Your task to perform on an android device: snooze an email in the gmail app Image 0: 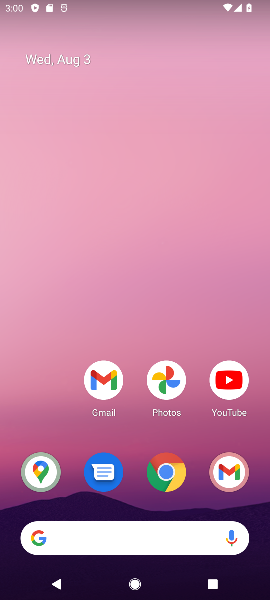
Step 0: drag from (146, 482) to (39, 149)
Your task to perform on an android device: snooze an email in the gmail app Image 1: 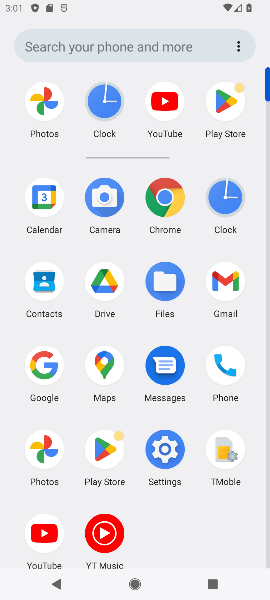
Step 1: click (215, 281)
Your task to perform on an android device: snooze an email in the gmail app Image 2: 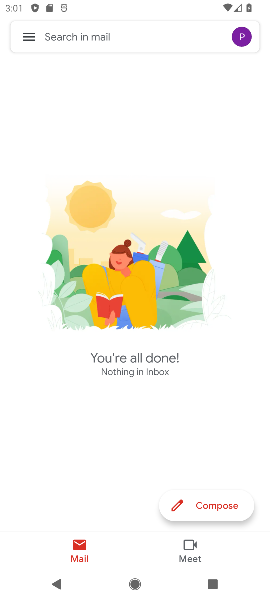
Step 2: click (27, 36)
Your task to perform on an android device: snooze an email in the gmail app Image 3: 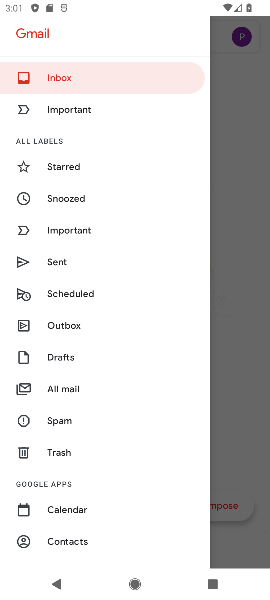
Step 3: click (250, 140)
Your task to perform on an android device: snooze an email in the gmail app Image 4: 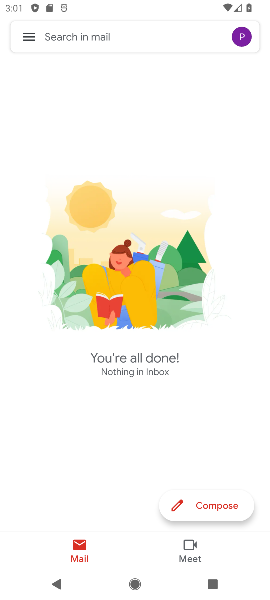
Step 4: task complete